Your task to perform on an android device: check google app version Image 0: 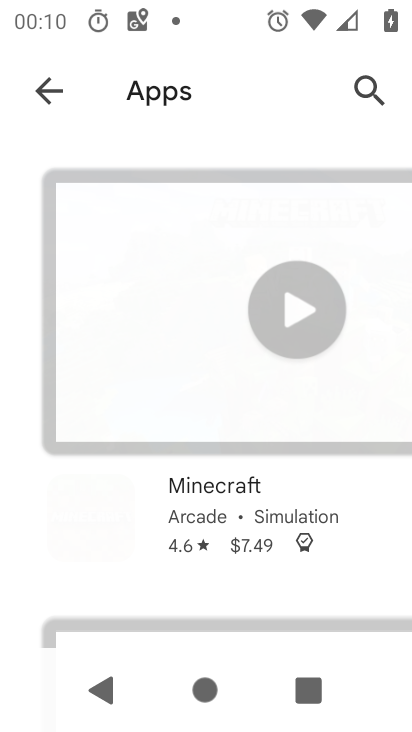
Step 0: press home button
Your task to perform on an android device: check google app version Image 1: 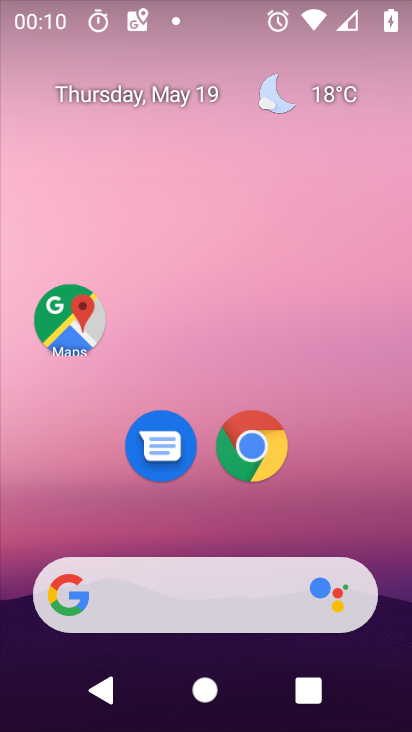
Step 1: drag from (193, 581) to (327, 193)
Your task to perform on an android device: check google app version Image 2: 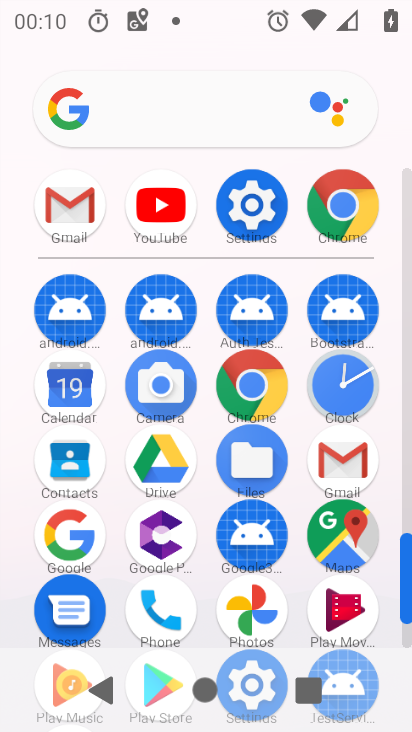
Step 2: click (82, 538)
Your task to perform on an android device: check google app version Image 3: 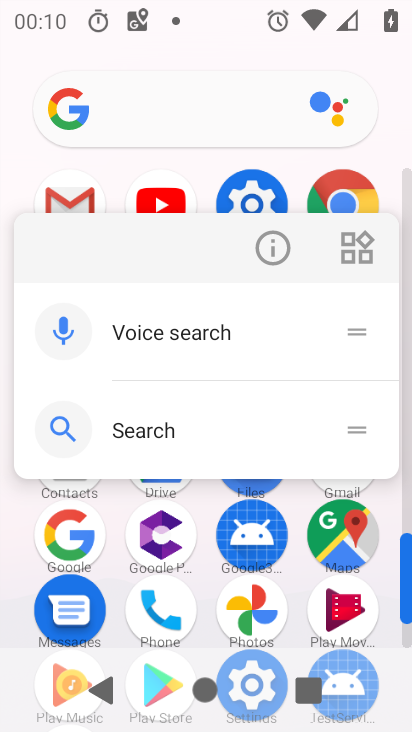
Step 3: click (274, 250)
Your task to perform on an android device: check google app version Image 4: 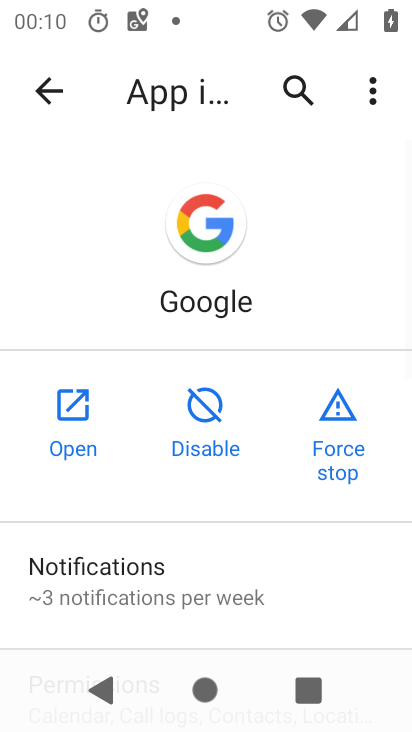
Step 4: drag from (201, 614) to (385, 93)
Your task to perform on an android device: check google app version Image 5: 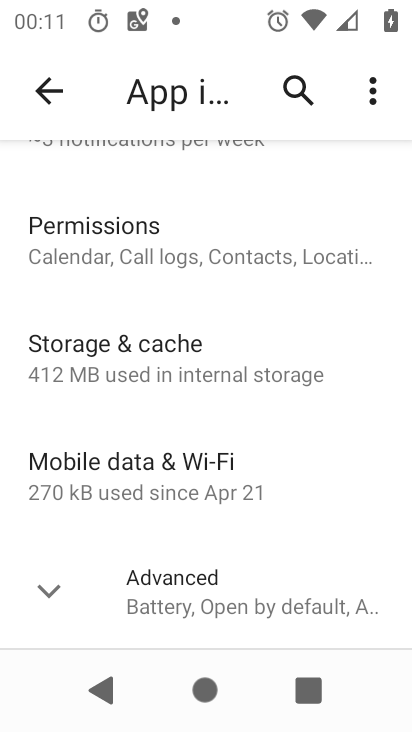
Step 5: click (191, 598)
Your task to perform on an android device: check google app version Image 6: 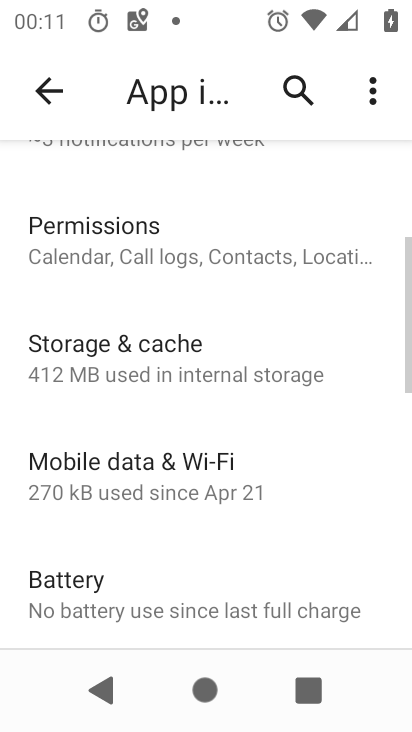
Step 6: task complete